Your task to perform on an android device: Open battery settings Image 0: 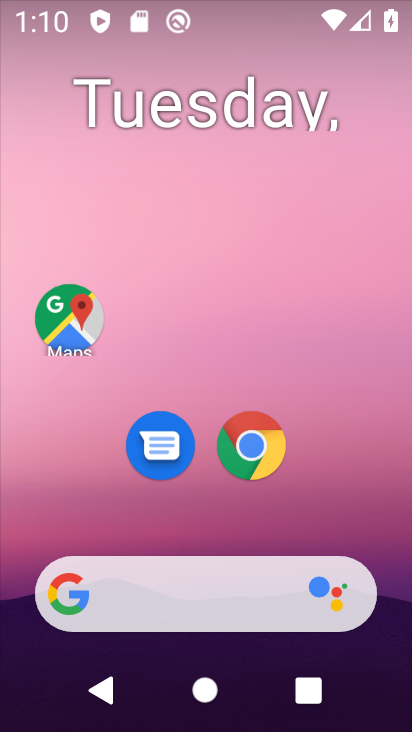
Step 0: drag from (193, 510) to (208, 89)
Your task to perform on an android device: Open battery settings Image 1: 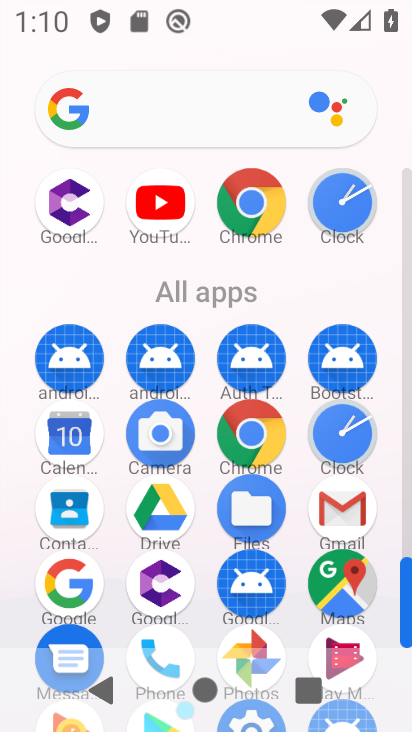
Step 1: drag from (112, 581) to (122, 353)
Your task to perform on an android device: Open battery settings Image 2: 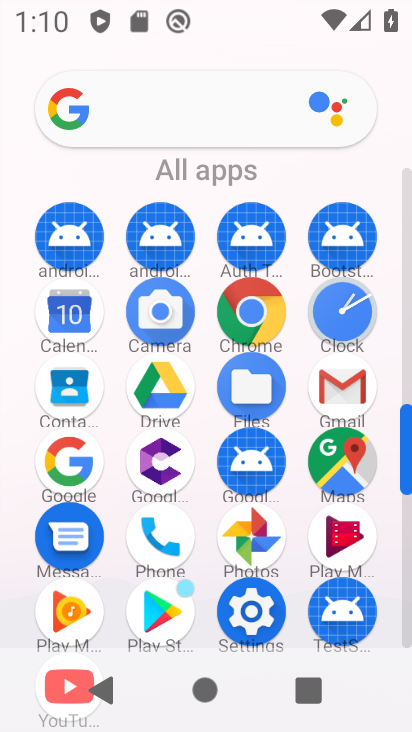
Step 2: click (248, 589)
Your task to perform on an android device: Open battery settings Image 3: 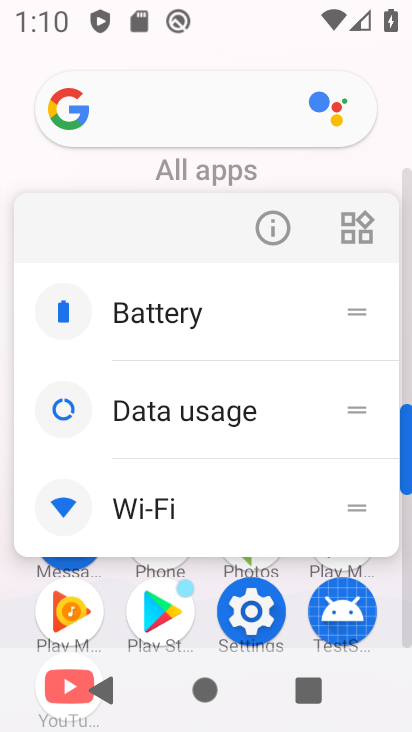
Step 3: click (251, 602)
Your task to perform on an android device: Open battery settings Image 4: 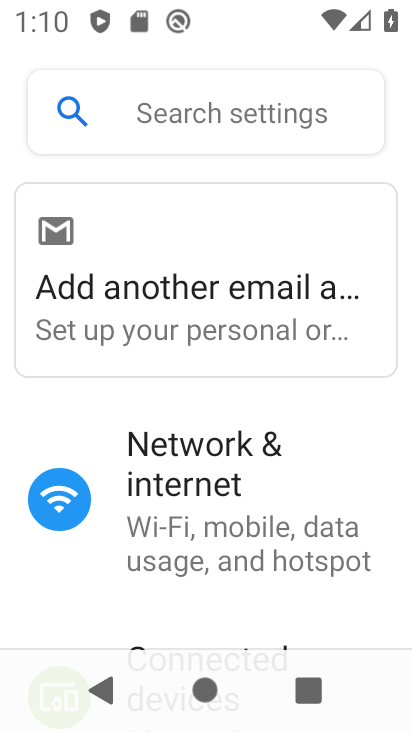
Step 4: drag from (250, 525) to (257, 248)
Your task to perform on an android device: Open battery settings Image 5: 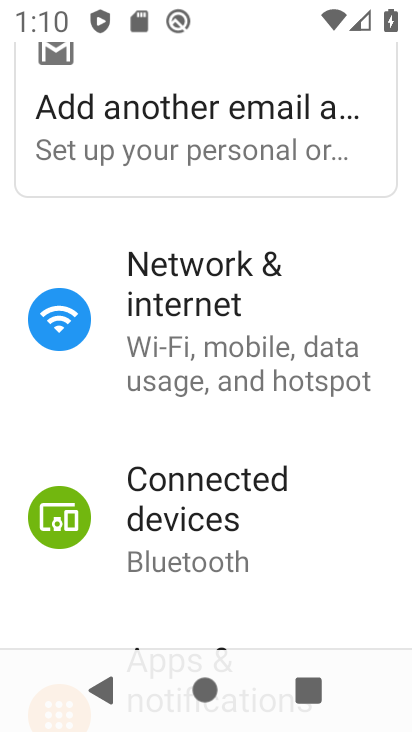
Step 5: drag from (257, 482) to (262, 273)
Your task to perform on an android device: Open battery settings Image 6: 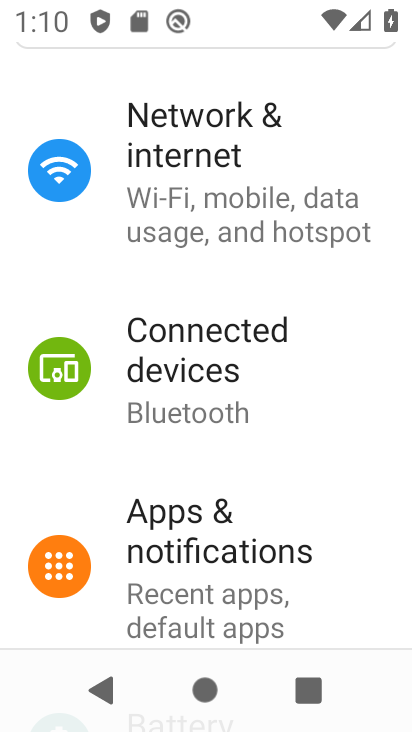
Step 6: drag from (228, 474) to (258, 235)
Your task to perform on an android device: Open battery settings Image 7: 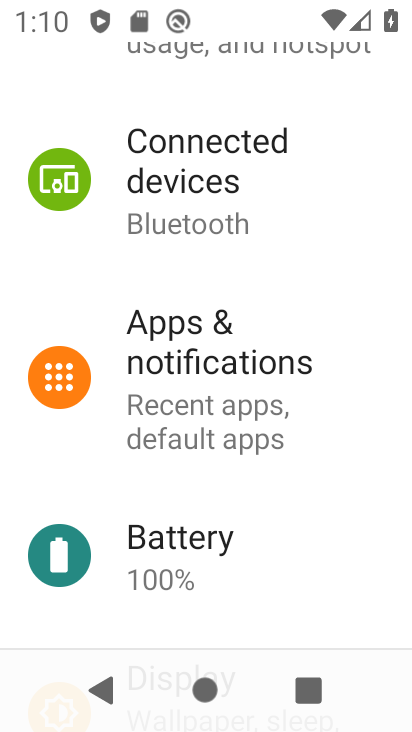
Step 7: click (215, 545)
Your task to perform on an android device: Open battery settings Image 8: 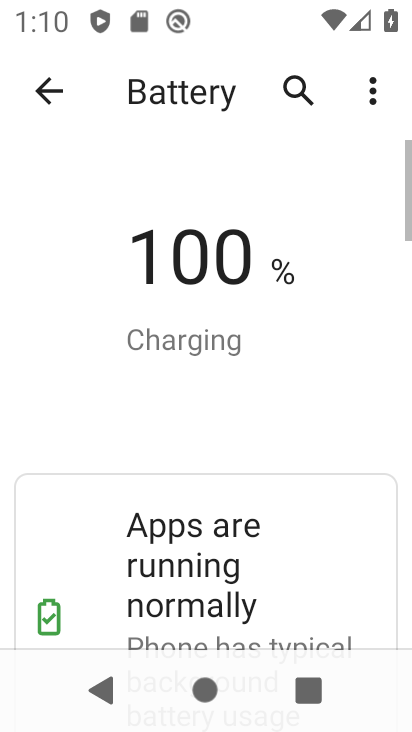
Step 8: task complete